Your task to perform on an android device: turn on improve location accuracy Image 0: 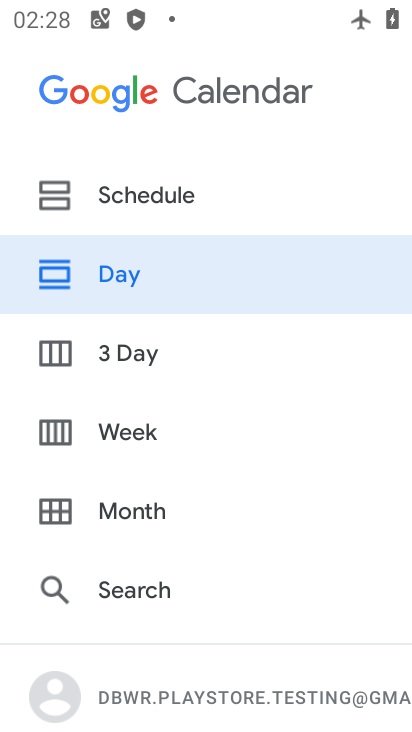
Step 0: press home button
Your task to perform on an android device: turn on improve location accuracy Image 1: 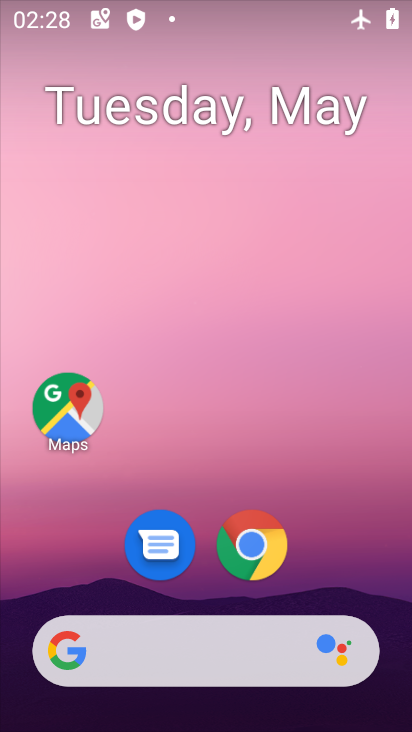
Step 1: drag from (383, 606) to (326, 21)
Your task to perform on an android device: turn on improve location accuracy Image 2: 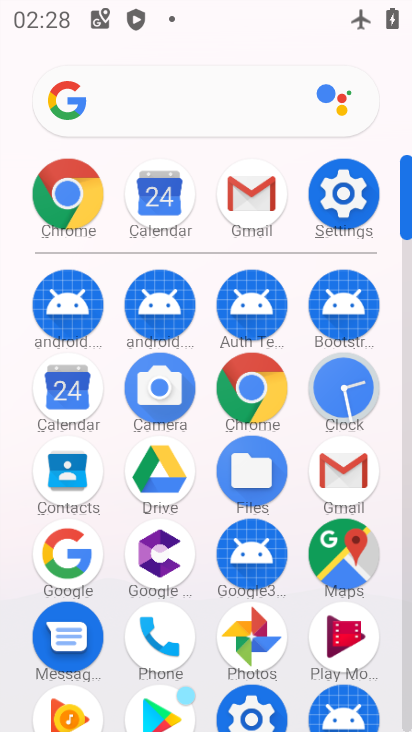
Step 2: click (405, 708)
Your task to perform on an android device: turn on improve location accuracy Image 3: 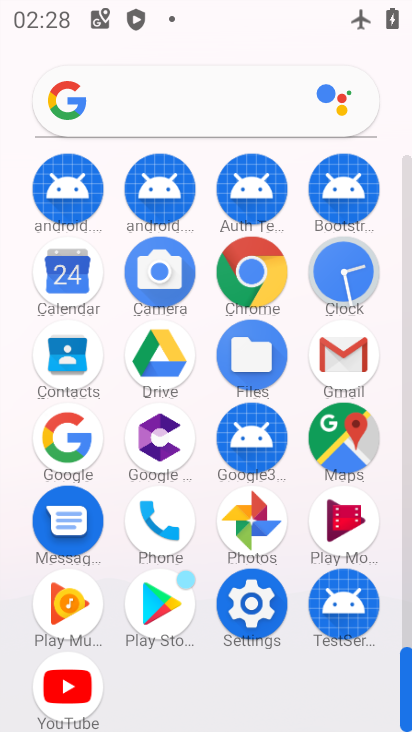
Step 3: click (251, 603)
Your task to perform on an android device: turn on improve location accuracy Image 4: 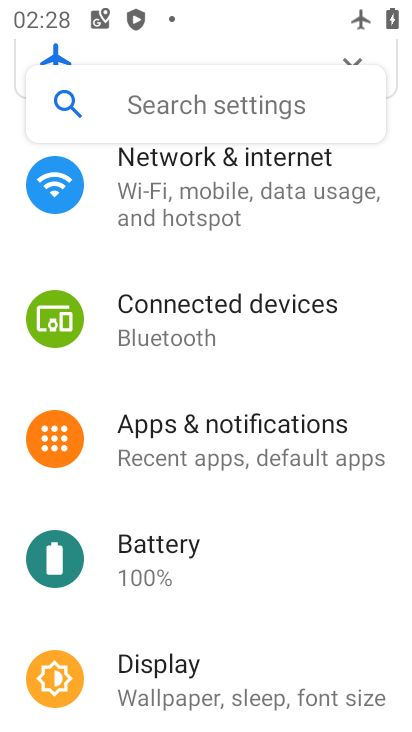
Step 4: drag from (309, 629) to (326, 339)
Your task to perform on an android device: turn on improve location accuracy Image 5: 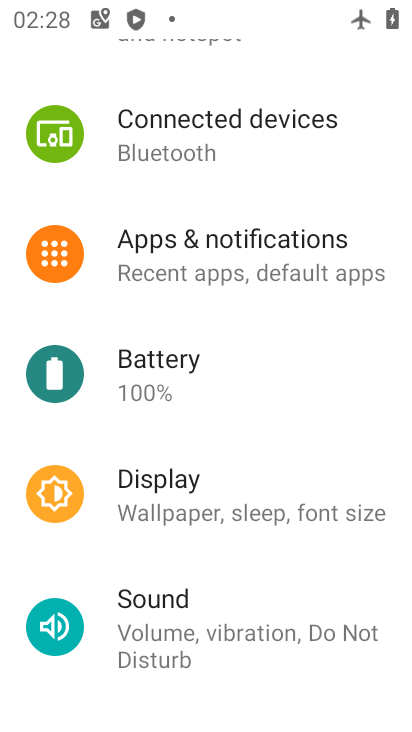
Step 5: drag from (325, 380) to (326, 537)
Your task to perform on an android device: turn on improve location accuracy Image 6: 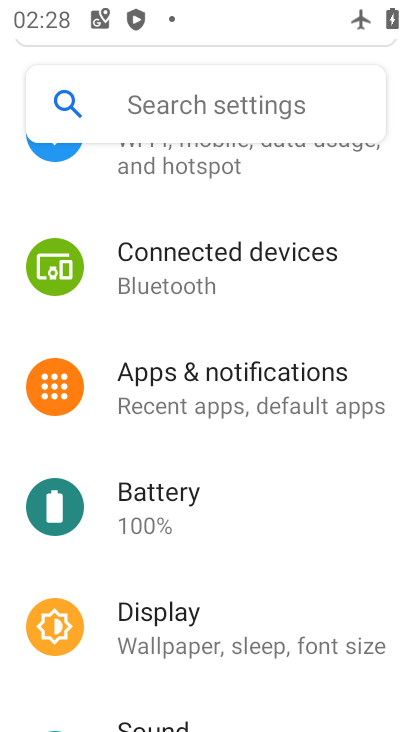
Step 6: drag from (345, 250) to (349, 466)
Your task to perform on an android device: turn on improve location accuracy Image 7: 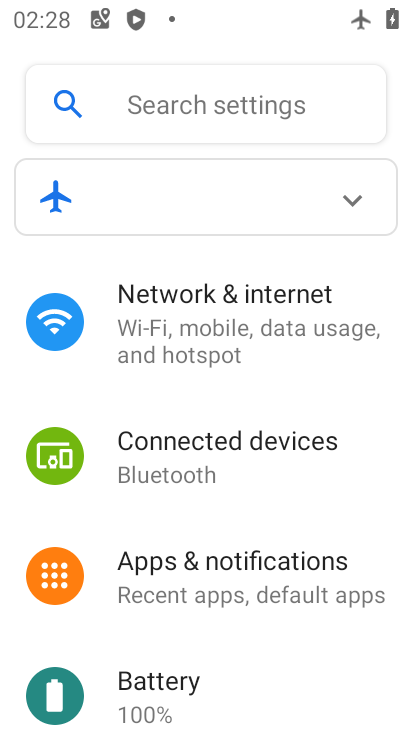
Step 7: drag from (339, 538) to (341, 238)
Your task to perform on an android device: turn on improve location accuracy Image 8: 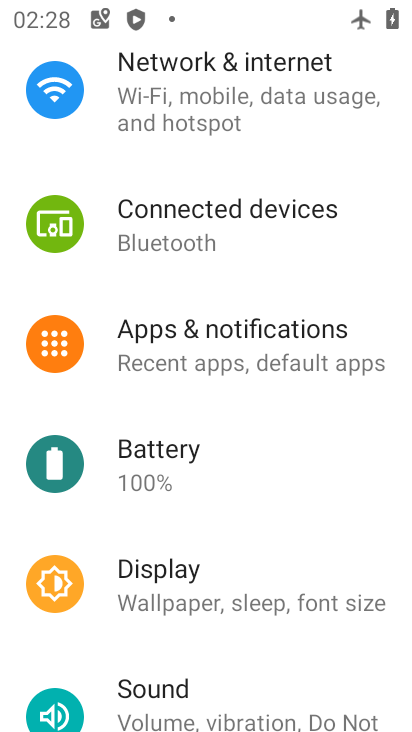
Step 8: drag from (327, 551) to (345, 157)
Your task to perform on an android device: turn on improve location accuracy Image 9: 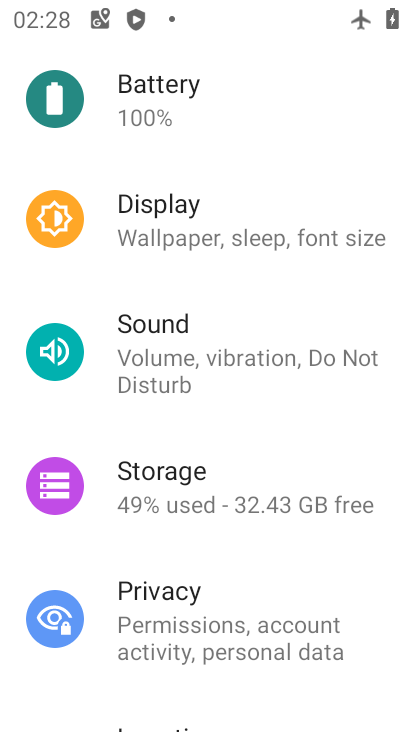
Step 9: drag from (340, 341) to (354, 606)
Your task to perform on an android device: turn on improve location accuracy Image 10: 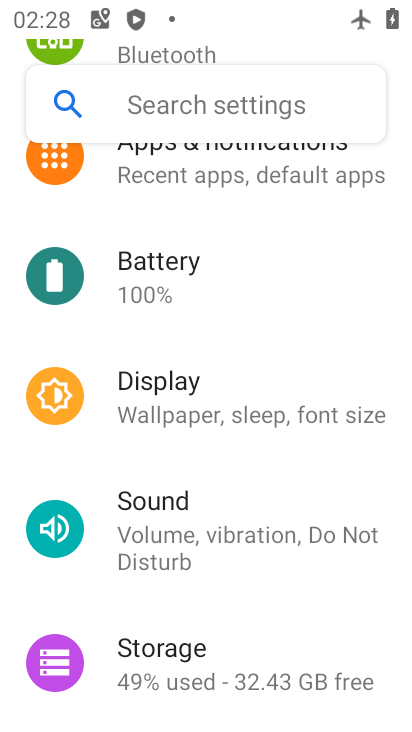
Step 10: drag from (352, 262) to (321, 572)
Your task to perform on an android device: turn on improve location accuracy Image 11: 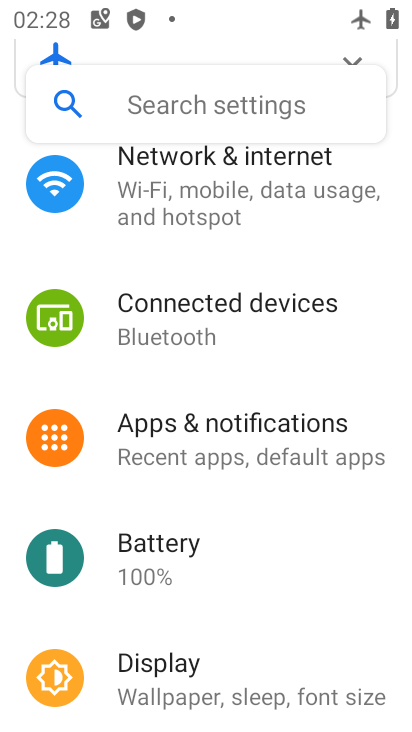
Step 11: drag from (318, 633) to (346, 222)
Your task to perform on an android device: turn on improve location accuracy Image 12: 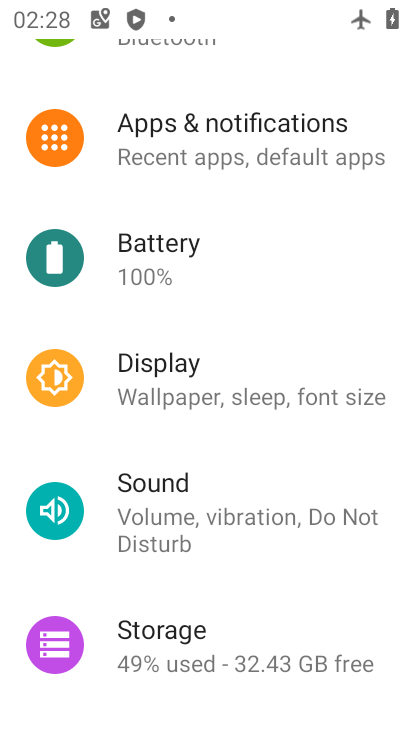
Step 12: drag from (353, 598) to (347, 112)
Your task to perform on an android device: turn on improve location accuracy Image 13: 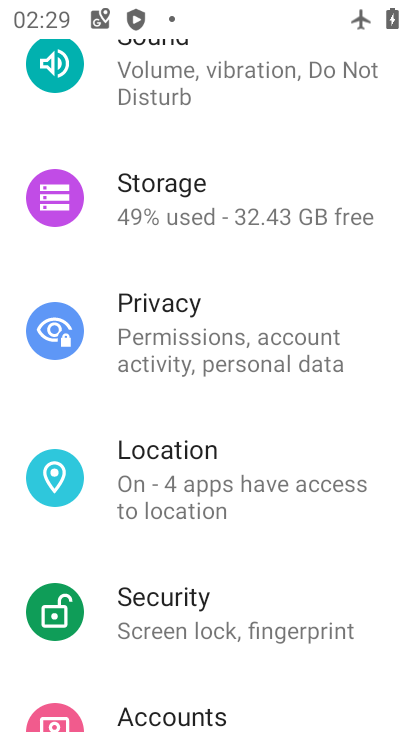
Step 13: click (185, 479)
Your task to perform on an android device: turn on improve location accuracy Image 14: 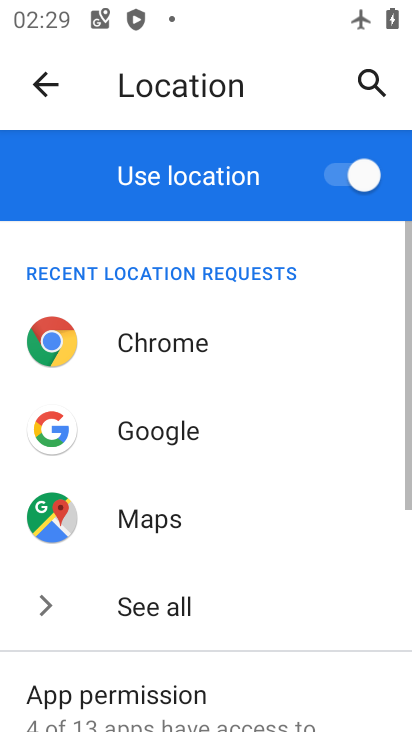
Step 14: drag from (256, 669) to (289, 186)
Your task to perform on an android device: turn on improve location accuracy Image 15: 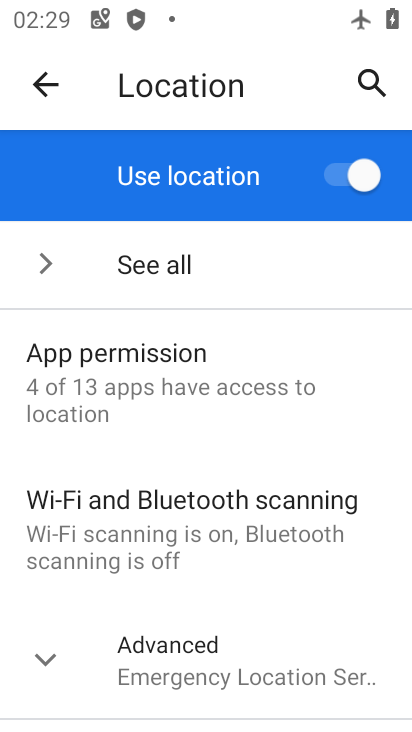
Step 15: click (47, 659)
Your task to perform on an android device: turn on improve location accuracy Image 16: 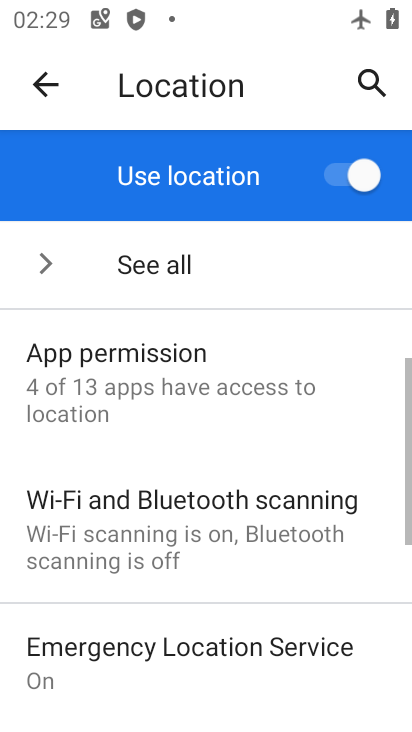
Step 16: drag from (284, 673) to (345, 162)
Your task to perform on an android device: turn on improve location accuracy Image 17: 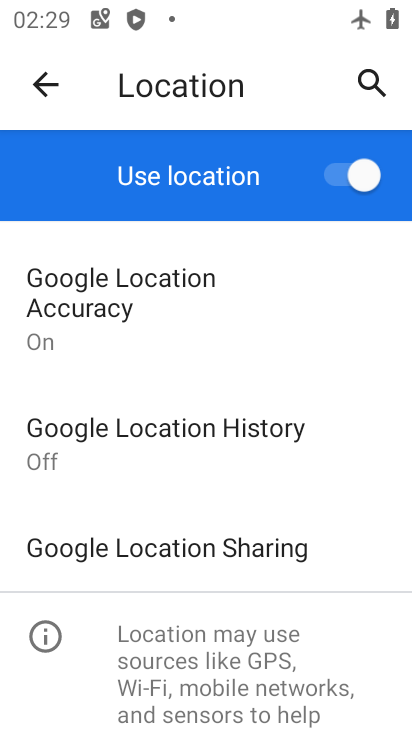
Step 17: click (76, 278)
Your task to perform on an android device: turn on improve location accuracy Image 18: 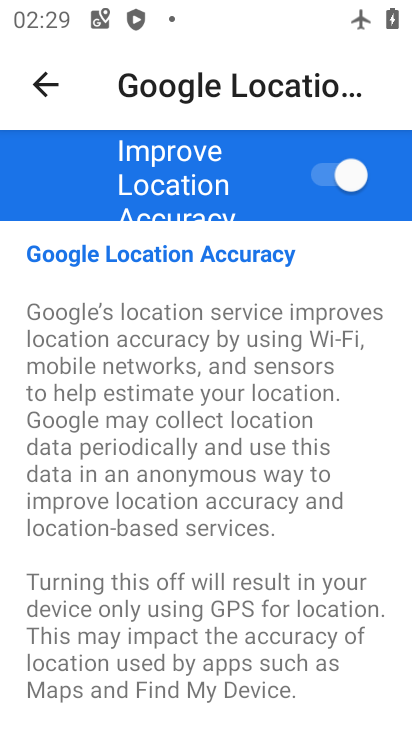
Step 18: task complete